Your task to perform on an android device: Open Android settings Image 0: 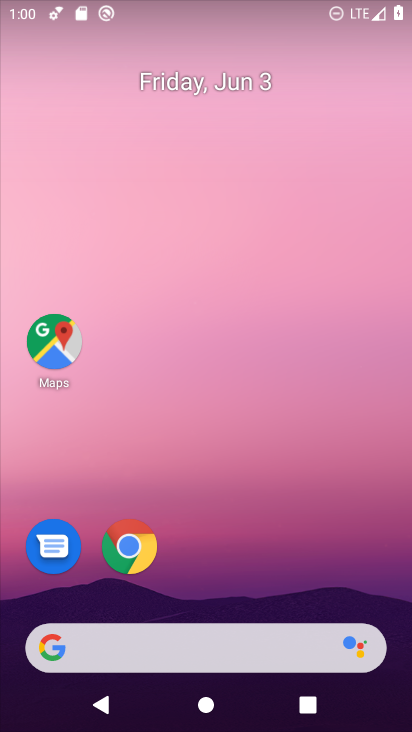
Step 0: drag from (270, 560) to (204, 122)
Your task to perform on an android device: Open Android settings Image 1: 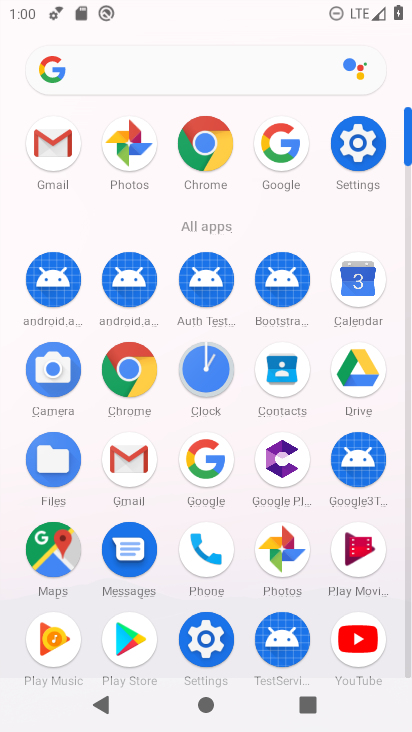
Step 1: click (357, 140)
Your task to perform on an android device: Open Android settings Image 2: 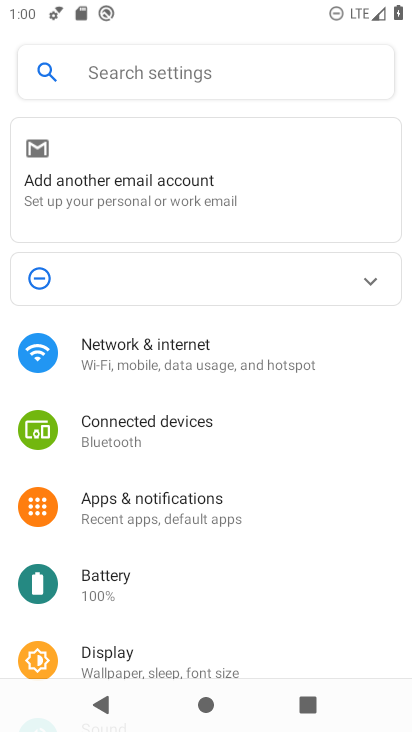
Step 2: task complete